Your task to perform on an android device: set an alarm Image 0: 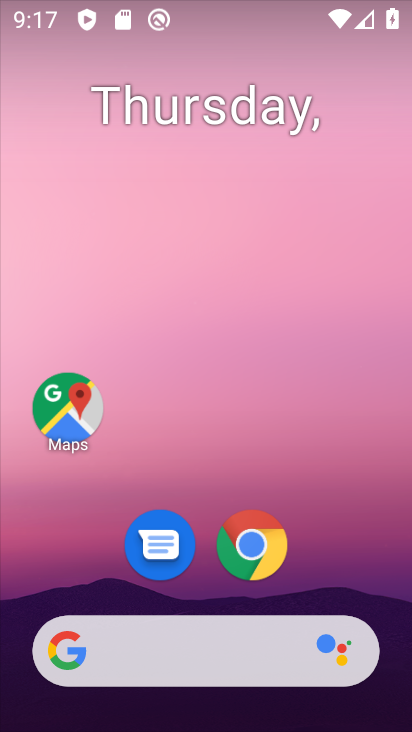
Step 0: drag from (318, 566) to (265, 152)
Your task to perform on an android device: set an alarm Image 1: 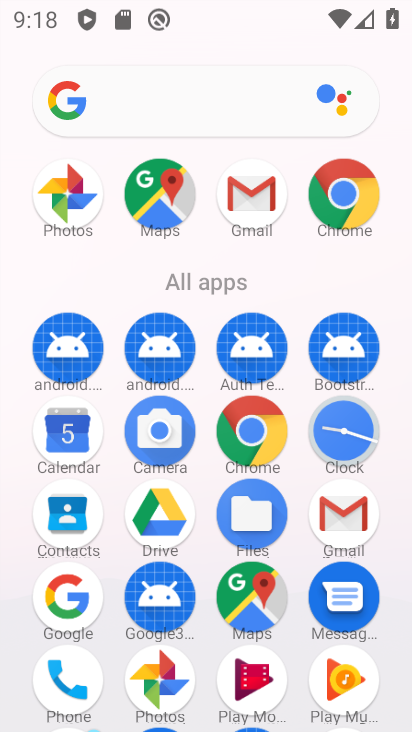
Step 1: click (340, 419)
Your task to perform on an android device: set an alarm Image 2: 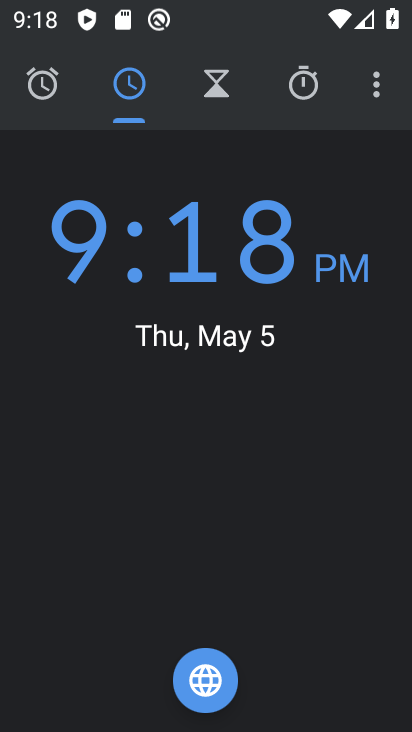
Step 2: click (40, 83)
Your task to perform on an android device: set an alarm Image 3: 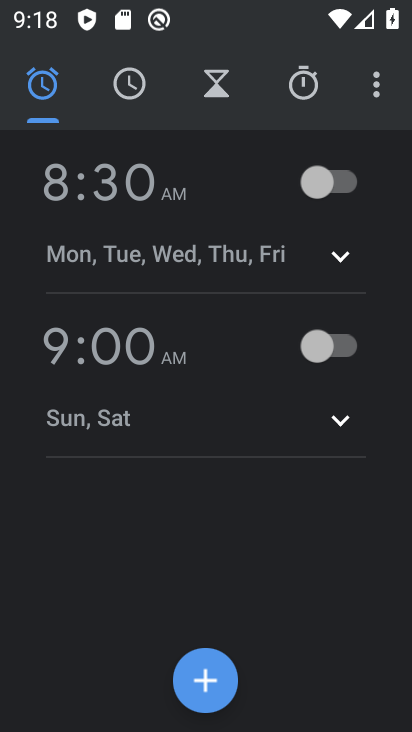
Step 3: click (209, 689)
Your task to perform on an android device: set an alarm Image 4: 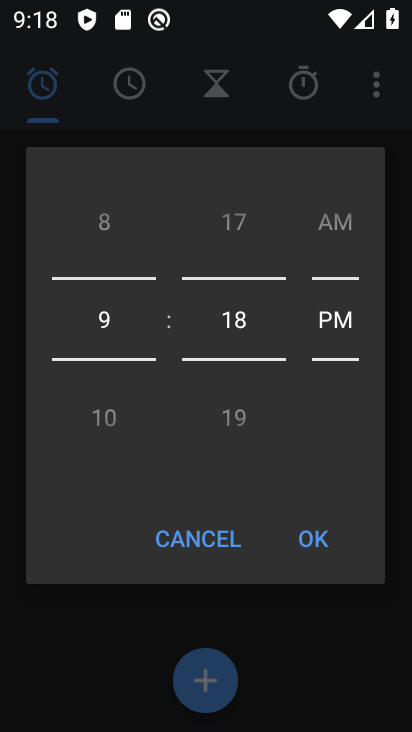
Step 4: click (323, 539)
Your task to perform on an android device: set an alarm Image 5: 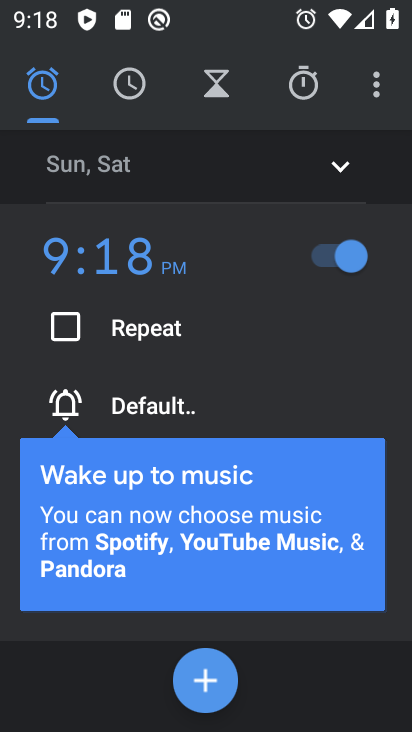
Step 5: task complete